Your task to perform on an android device: turn on translation in the chrome app Image 0: 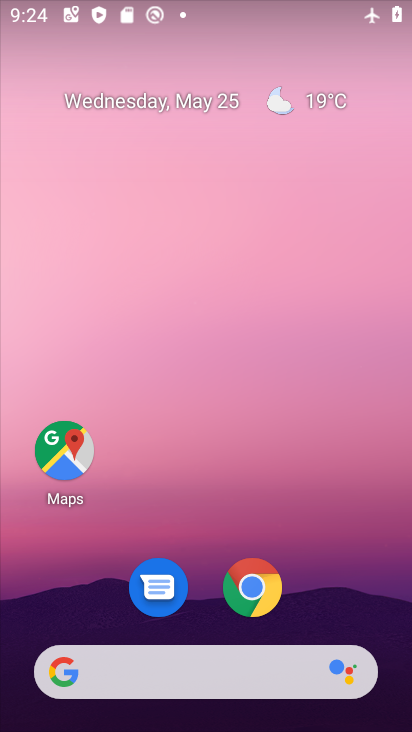
Step 0: click (256, 589)
Your task to perform on an android device: turn on translation in the chrome app Image 1: 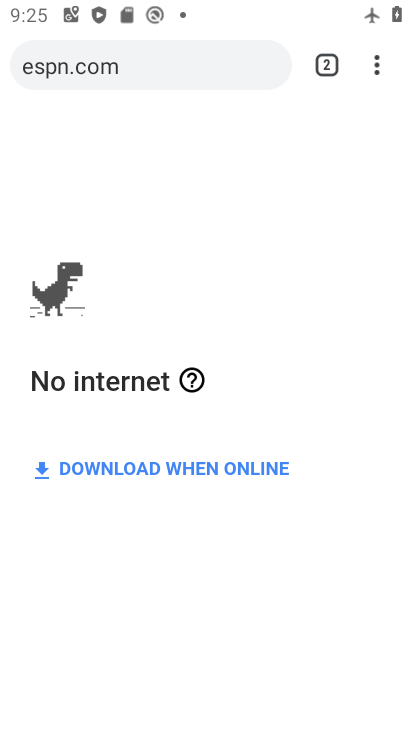
Step 1: click (378, 70)
Your task to perform on an android device: turn on translation in the chrome app Image 2: 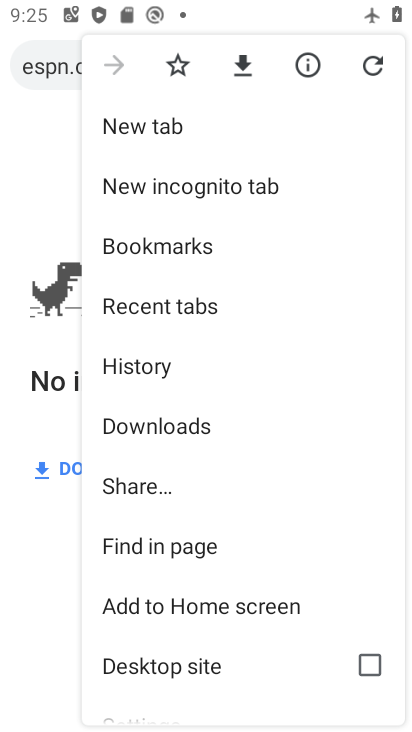
Step 2: drag from (315, 611) to (294, 221)
Your task to perform on an android device: turn on translation in the chrome app Image 3: 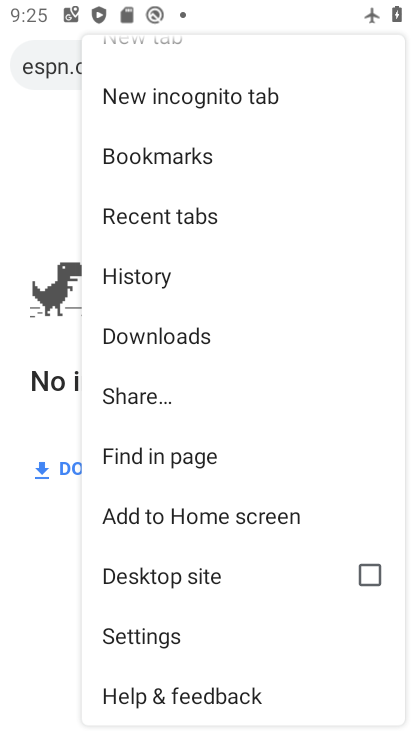
Step 3: click (168, 628)
Your task to perform on an android device: turn on translation in the chrome app Image 4: 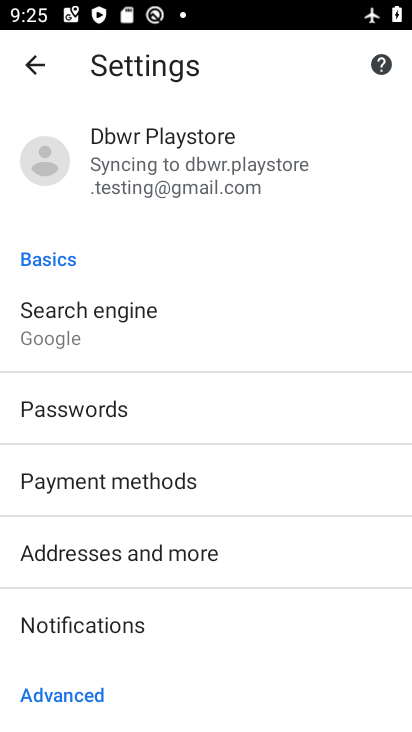
Step 4: drag from (217, 676) to (243, 246)
Your task to perform on an android device: turn on translation in the chrome app Image 5: 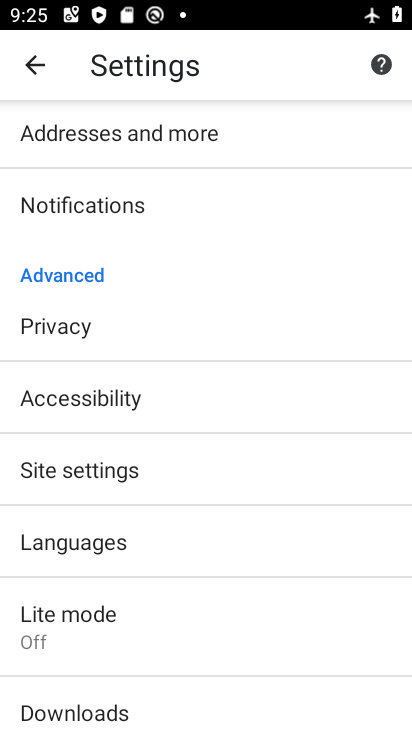
Step 5: click (76, 544)
Your task to perform on an android device: turn on translation in the chrome app Image 6: 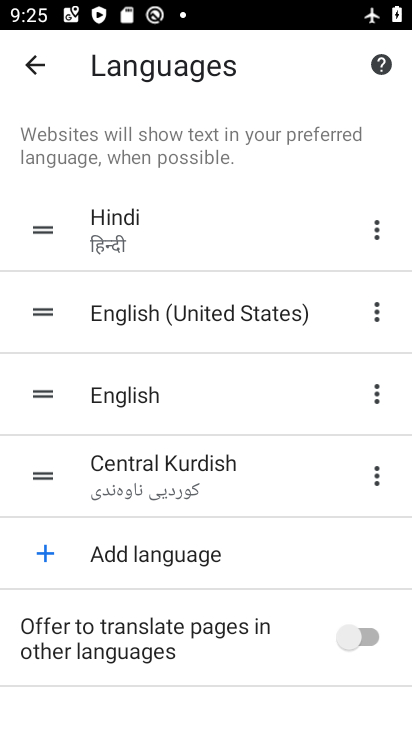
Step 6: click (365, 636)
Your task to perform on an android device: turn on translation in the chrome app Image 7: 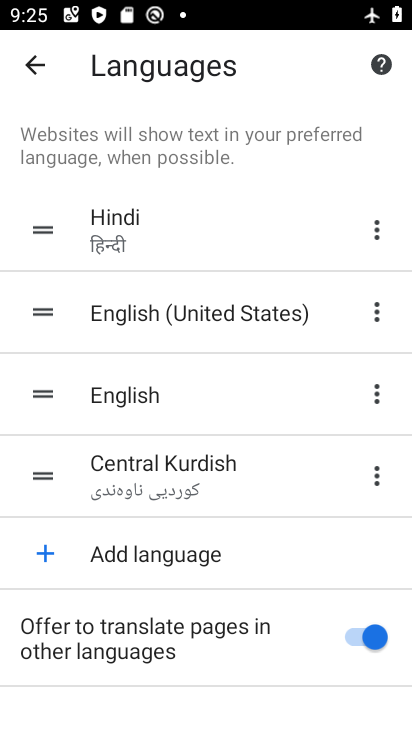
Step 7: task complete